Your task to perform on an android device: toggle pop-ups in chrome Image 0: 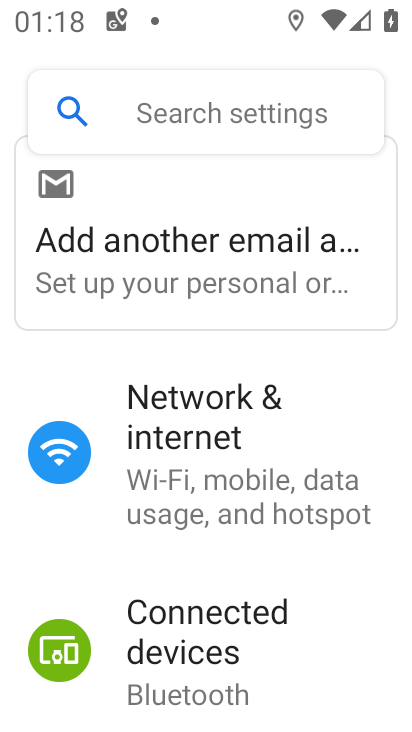
Step 0: press home button
Your task to perform on an android device: toggle pop-ups in chrome Image 1: 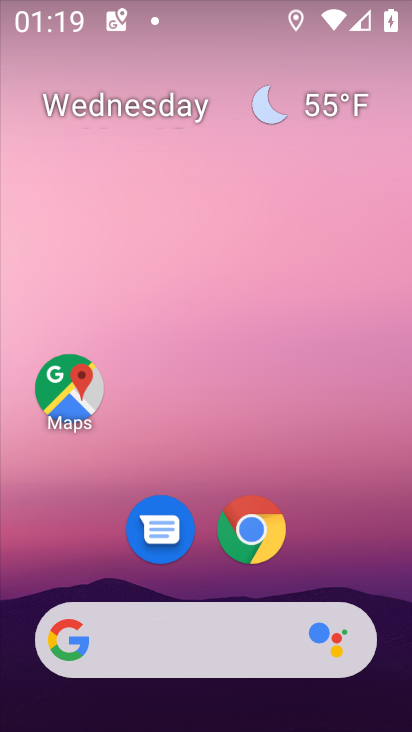
Step 1: click (252, 526)
Your task to perform on an android device: toggle pop-ups in chrome Image 2: 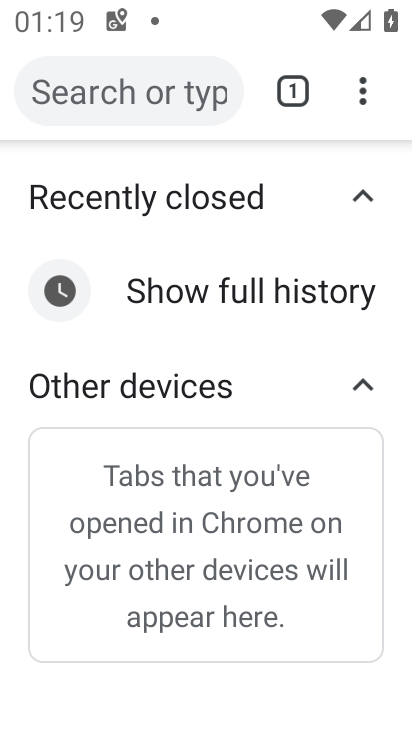
Step 2: click (363, 103)
Your task to perform on an android device: toggle pop-ups in chrome Image 3: 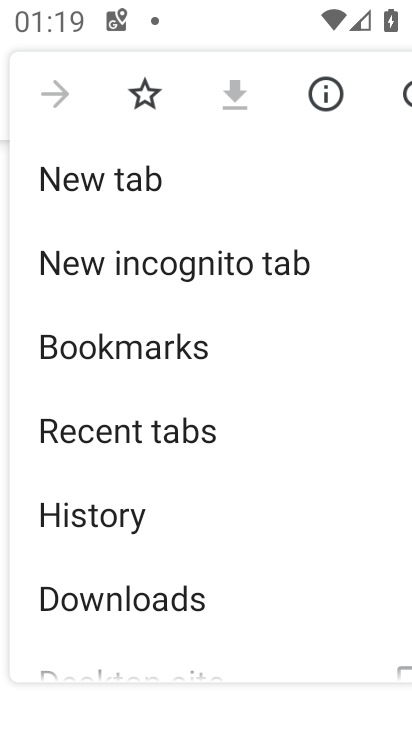
Step 3: drag from (155, 640) to (160, 294)
Your task to perform on an android device: toggle pop-ups in chrome Image 4: 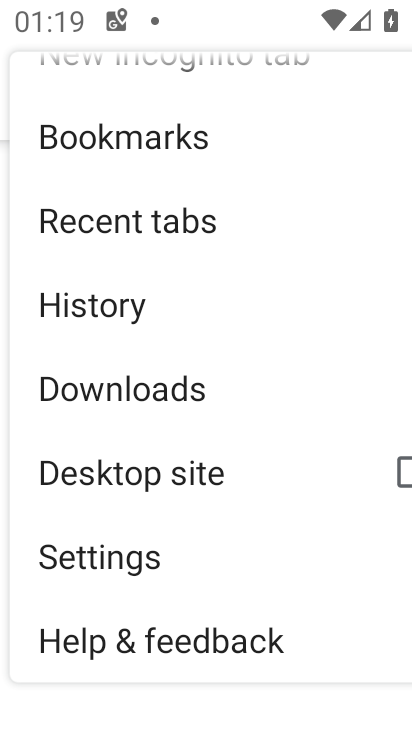
Step 4: click (128, 556)
Your task to perform on an android device: toggle pop-ups in chrome Image 5: 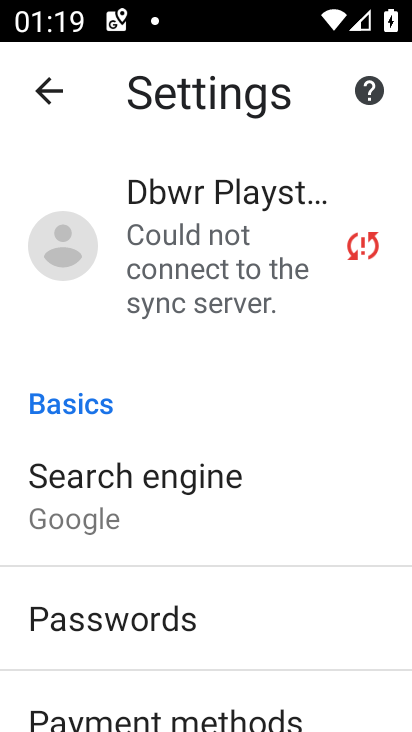
Step 5: drag from (138, 693) to (171, 343)
Your task to perform on an android device: toggle pop-ups in chrome Image 6: 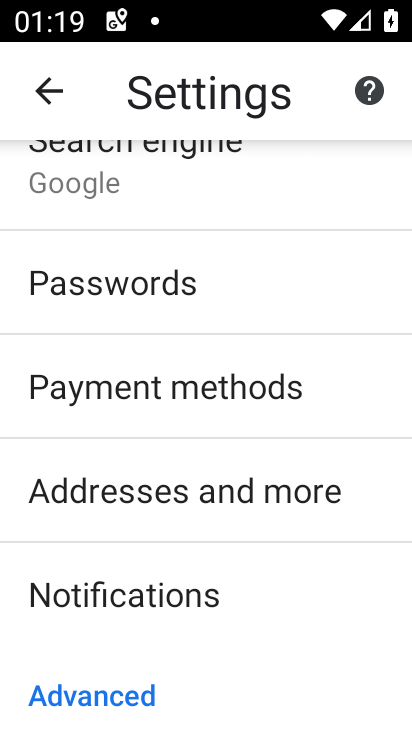
Step 6: drag from (150, 663) to (167, 231)
Your task to perform on an android device: toggle pop-ups in chrome Image 7: 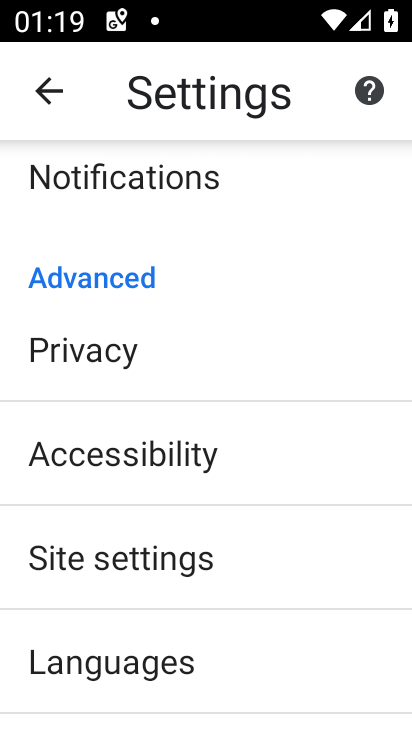
Step 7: click (127, 558)
Your task to perform on an android device: toggle pop-ups in chrome Image 8: 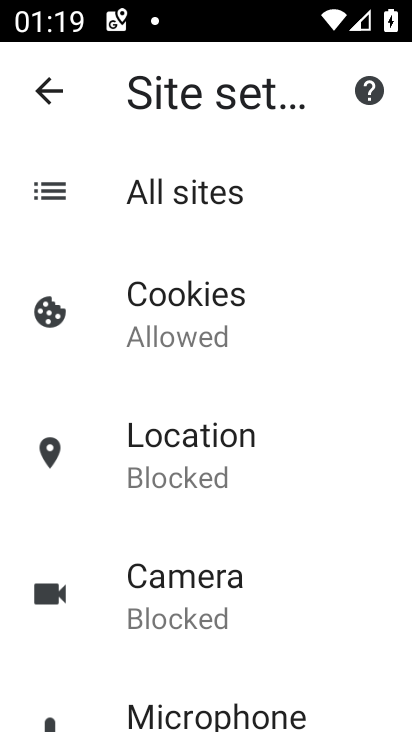
Step 8: drag from (176, 680) to (213, 309)
Your task to perform on an android device: toggle pop-ups in chrome Image 9: 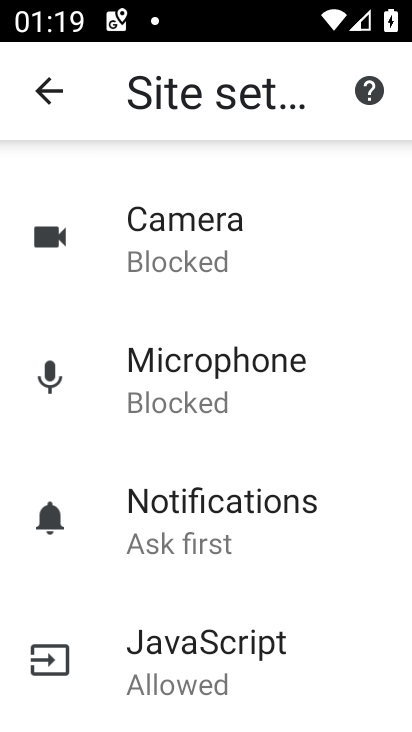
Step 9: drag from (191, 676) to (202, 298)
Your task to perform on an android device: toggle pop-ups in chrome Image 10: 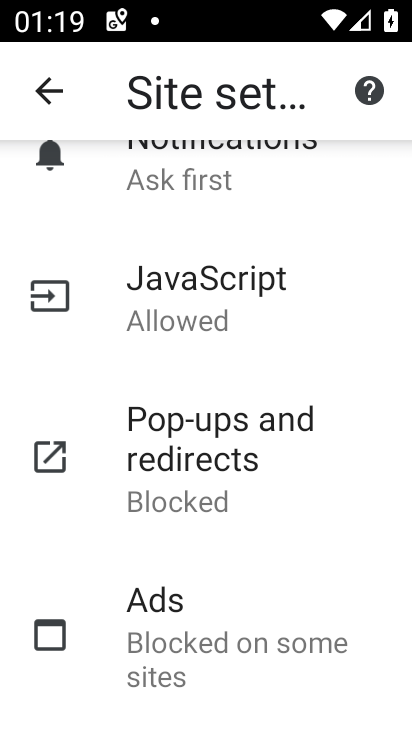
Step 10: drag from (233, 246) to (267, 239)
Your task to perform on an android device: toggle pop-ups in chrome Image 11: 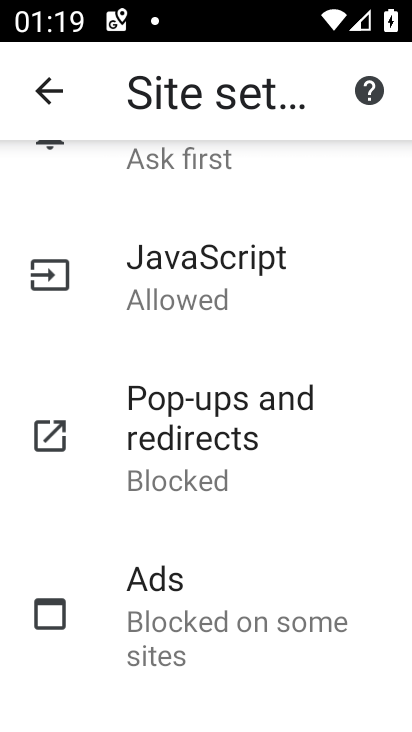
Step 11: drag from (218, 681) to (232, 310)
Your task to perform on an android device: toggle pop-ups in chrome Image 12: 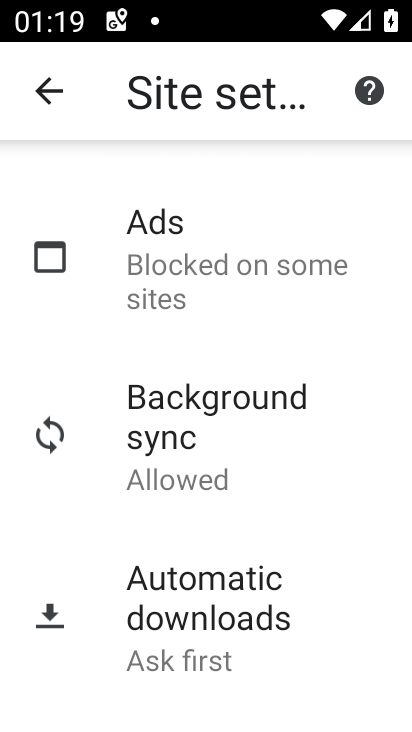
Step 12: drag from (187, 679) to (203, 354)
Your task to perform on an android device: toggle pop-ups in chrome Image 13: 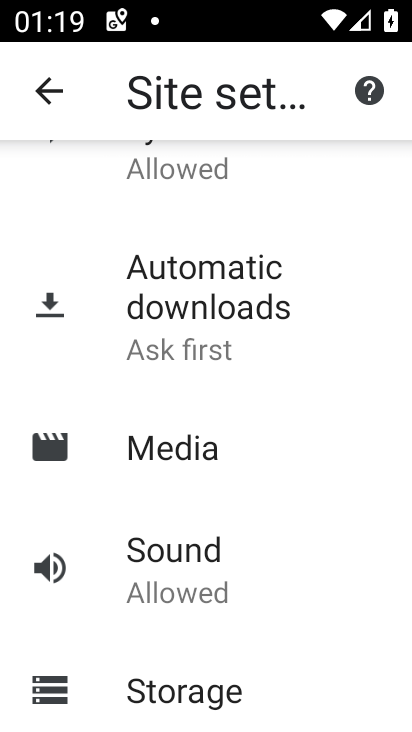
Step 13: drag from (292, 227) to (281, 551)
Your task to perform on an android device: toggle pop-ups in chrome Image 14: 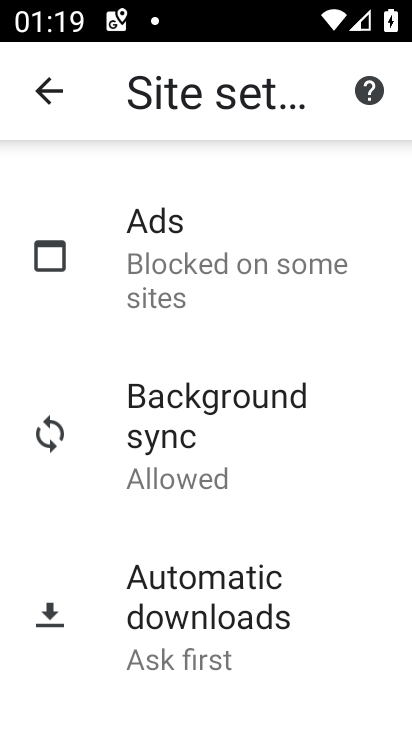
Step 14: drag from (262, 197) to (244, 553)
Your task to perform on an android device: toggle pop-ups in chrome Image 15: 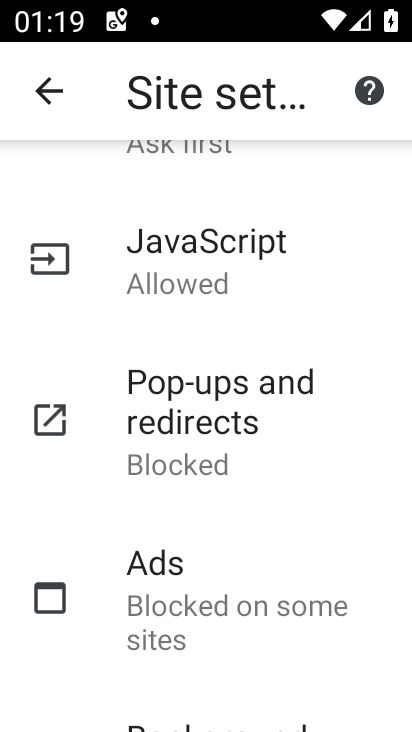
Step 15: click (162, 424)
Your task to perform on an android device: toggle pop-ups in chrome Image 16: 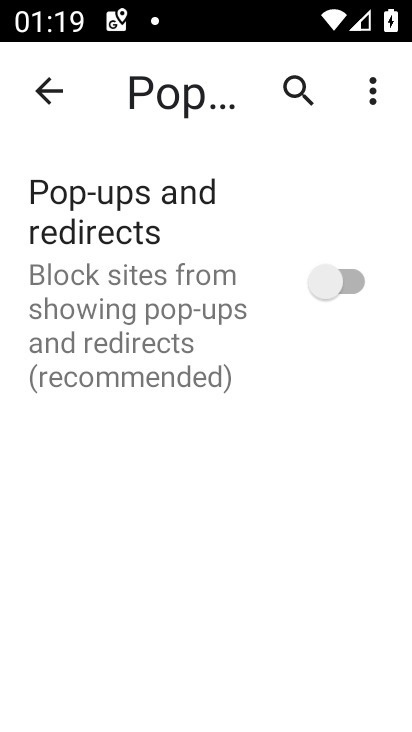
Step 16: click (353, 270)
Your task to perform on an android device: toggle pop-ups in chrome Image 17: 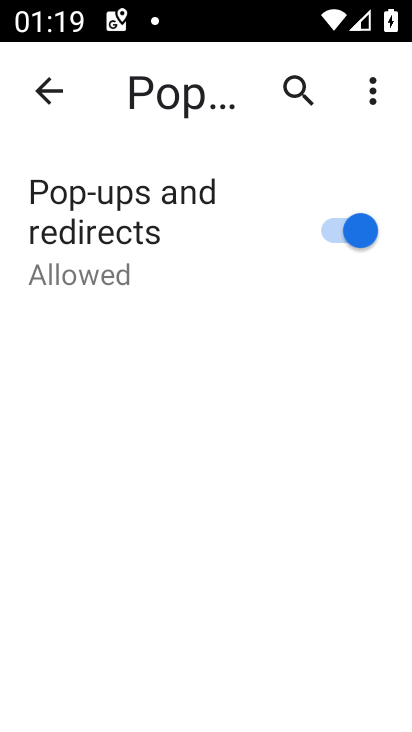
Step 17: task complete